Your task to perform on an android device: check out phone information Image 0: 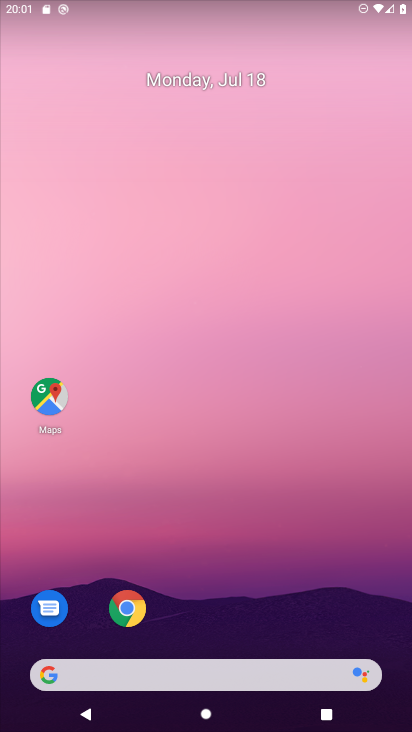
Step 0: drag from (196, 616) to (199, 136)
Your task to perform on an android device: check out phone information Image 1: 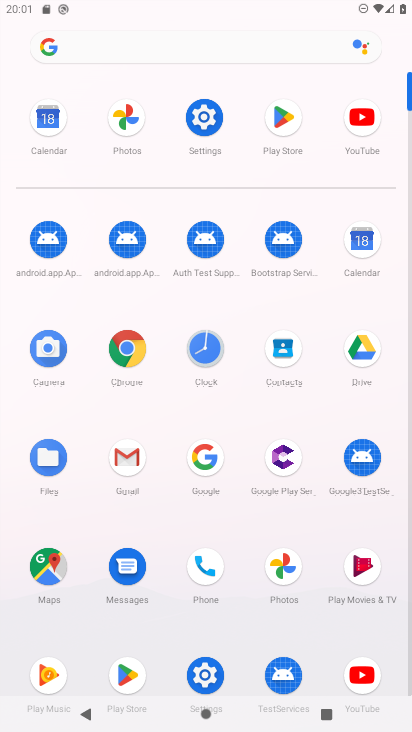
Step 1: click (215, 114)
Your task to perform on an android device: check out phone information Image 2: 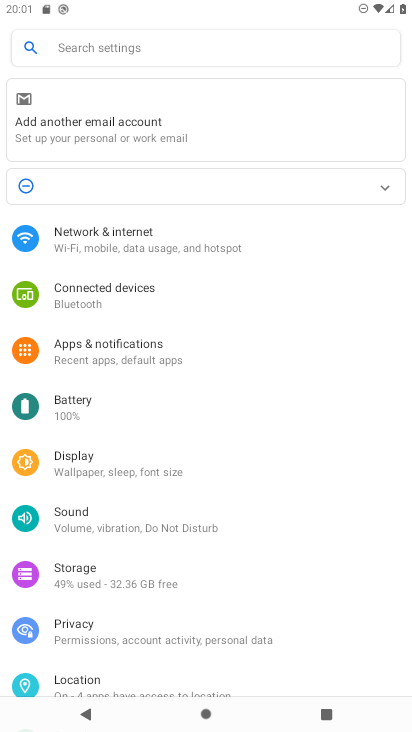
Step 2: drag from (220, 654) to (237, 0)
Your task to perform on an android device: check out phone information Image 3: 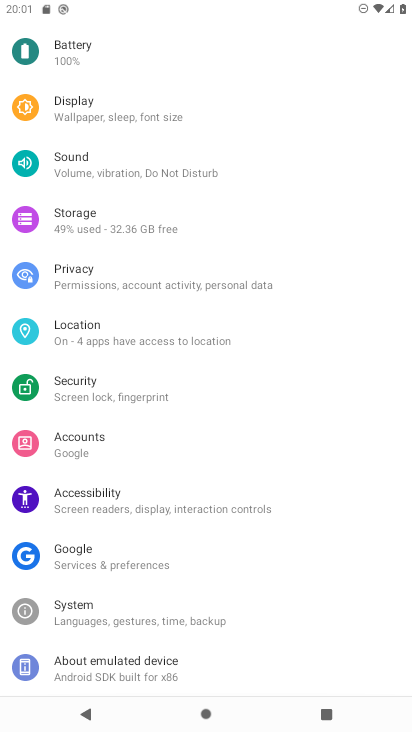
Step 3: click (109, 665)
Your task to perform on an android device: check out phone information Image 4: 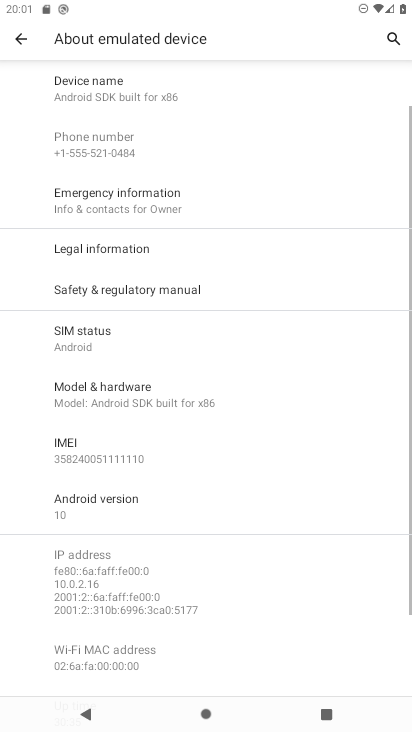
Step 4: task complete